Your task to perform on an android device: Set the phone to "Do not disturb". Image 0: 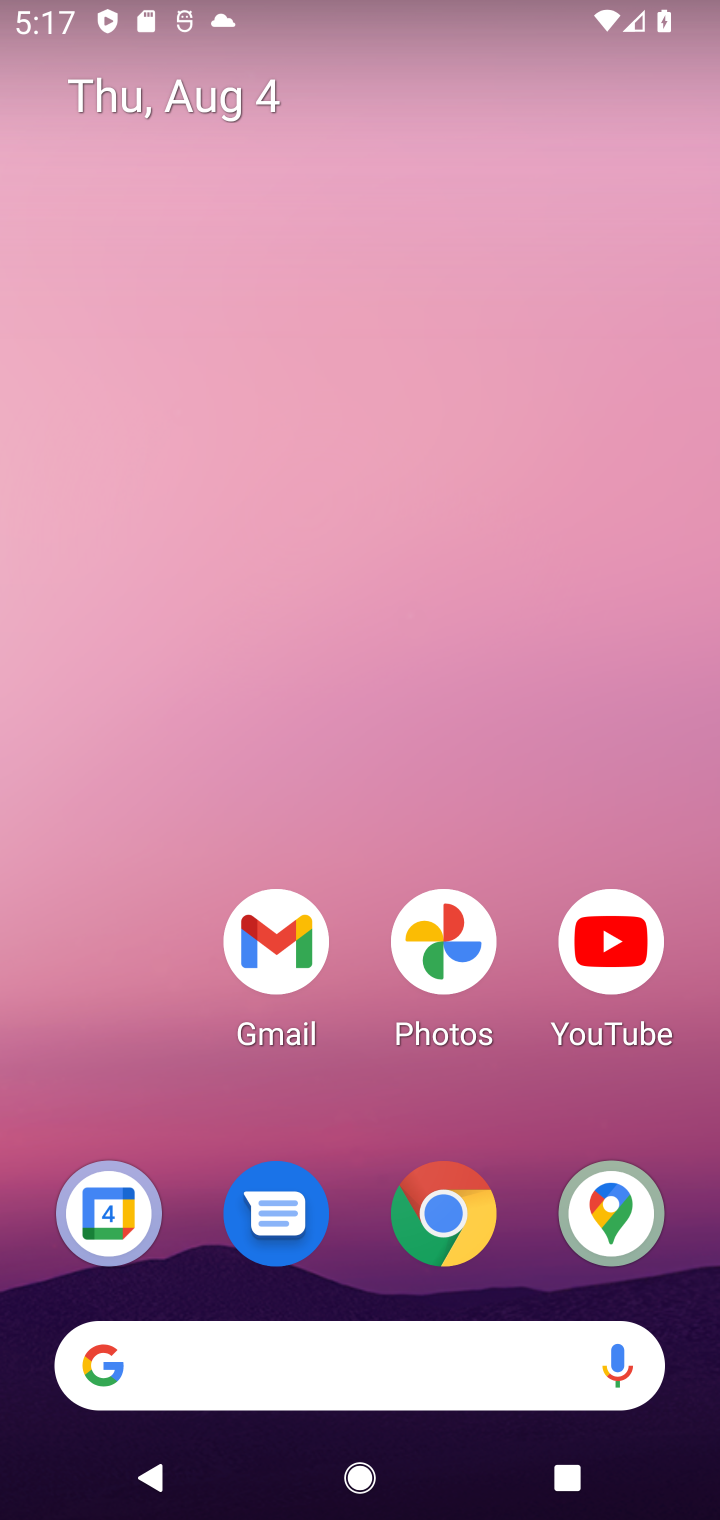
Step 0: press home button
Your task to perform on an android device: Set the phone to "Do not disturb". Image 1: 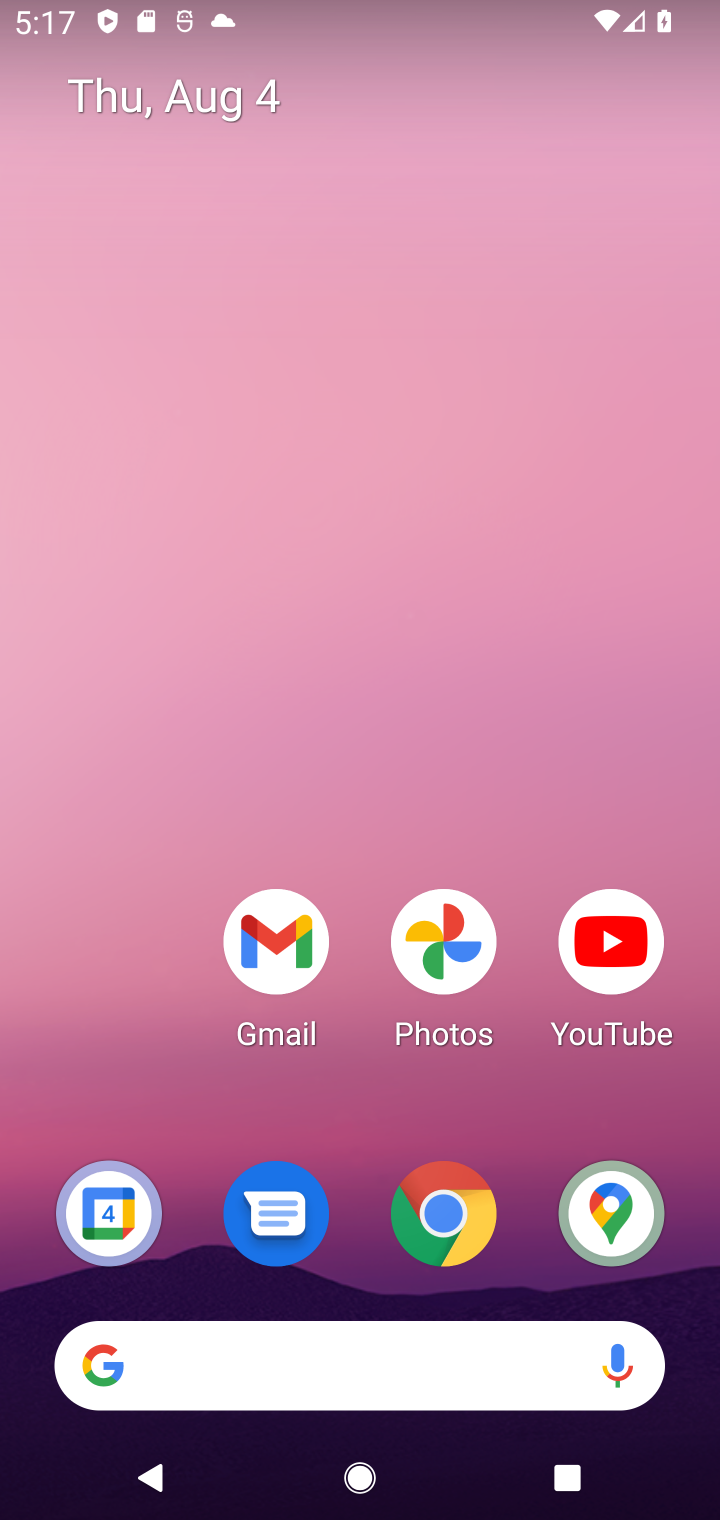
Step 1: drag from (169, 1088) to (171, 385)
Your task to perform on an android device: Set the phone to "Do not disturb". Image 2: 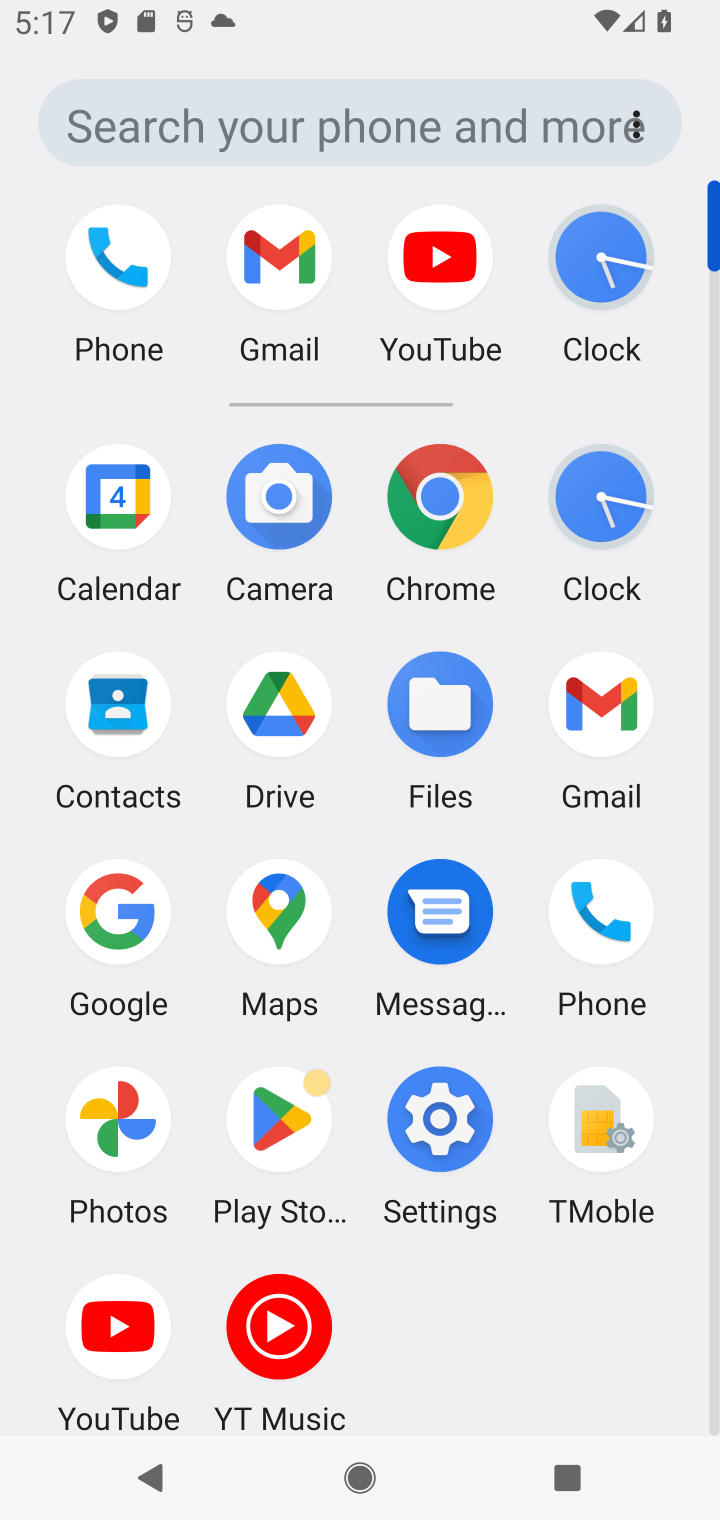
Step 2: click (452, 1100)
Your task to perform on an android device: Set the phone to "Do not disturb". Image 3: 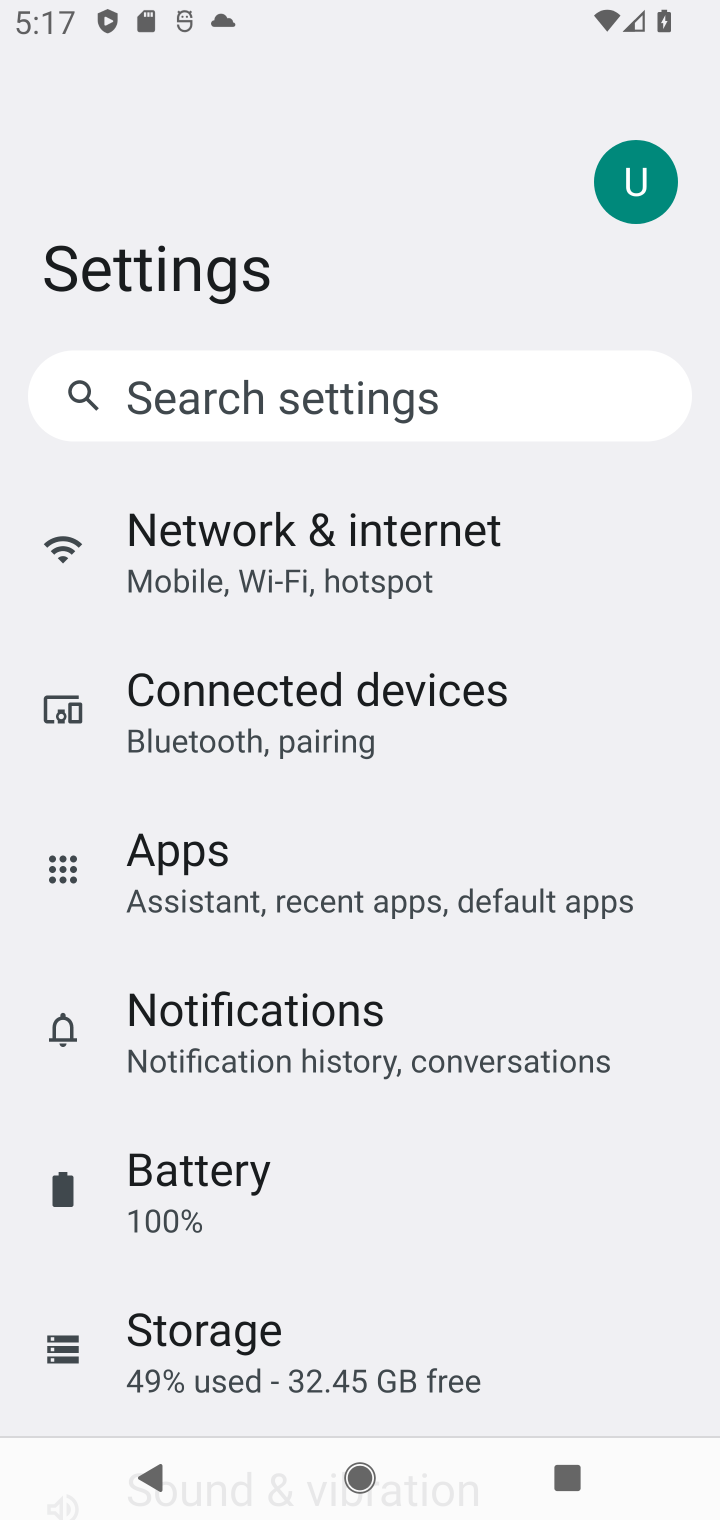
Step 3: drag from (586, 1252) to (607, 913)
Your task to perform on an android device: Set the phone to "Do not disturb". Image 4: 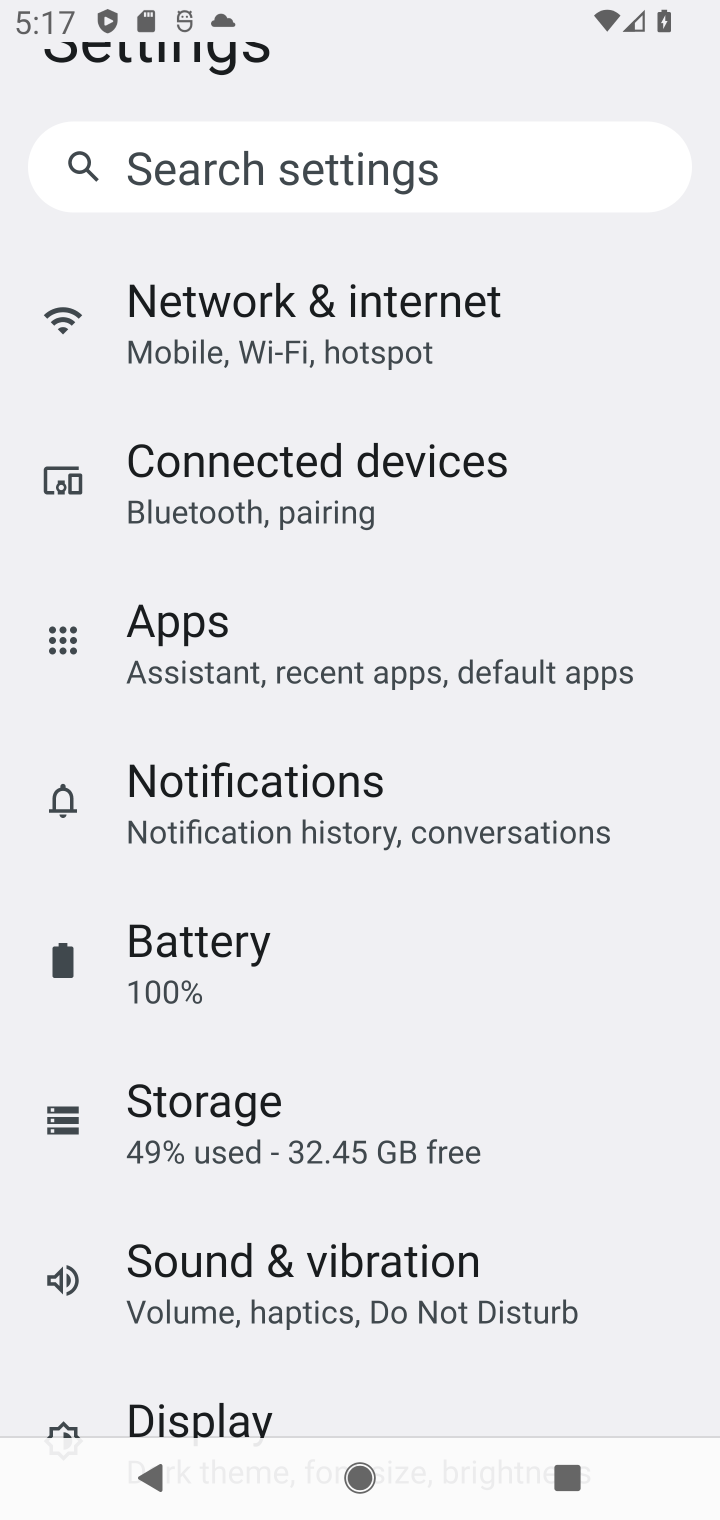
Step 4: drag from (627, 1316) to (630, 1013)
Your task to perform on an android device: Set the phone to "Do not disturb". Image 5: 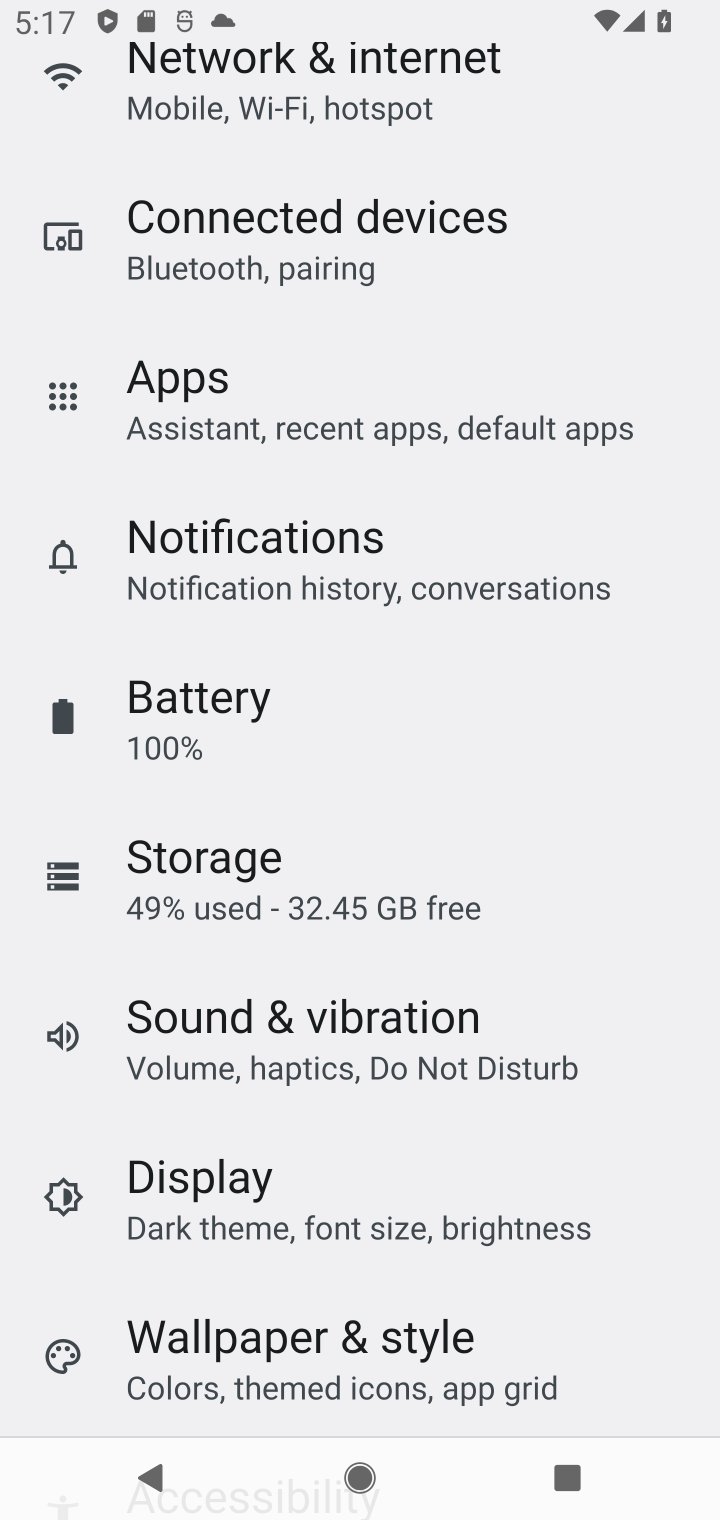
Step 5: drag from (609, 1330) to (619, 1009)
Your task to perform on an android device: Set the phone to "Do not disturb". Image 6: 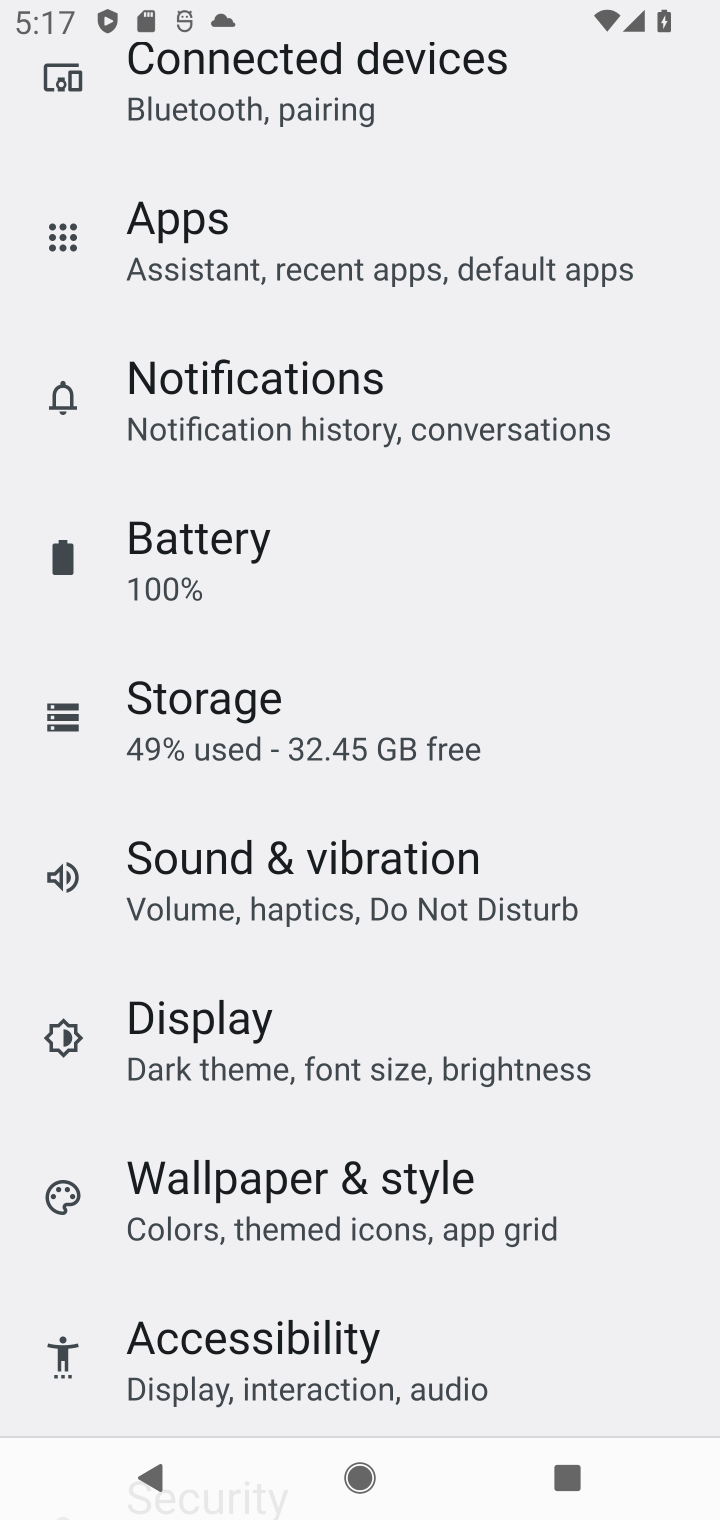
Step 6: drag from (600, 1317) to (611, 1011)
Your task to perform on an android device: Set the phone to "Do not disturb". Image 7: 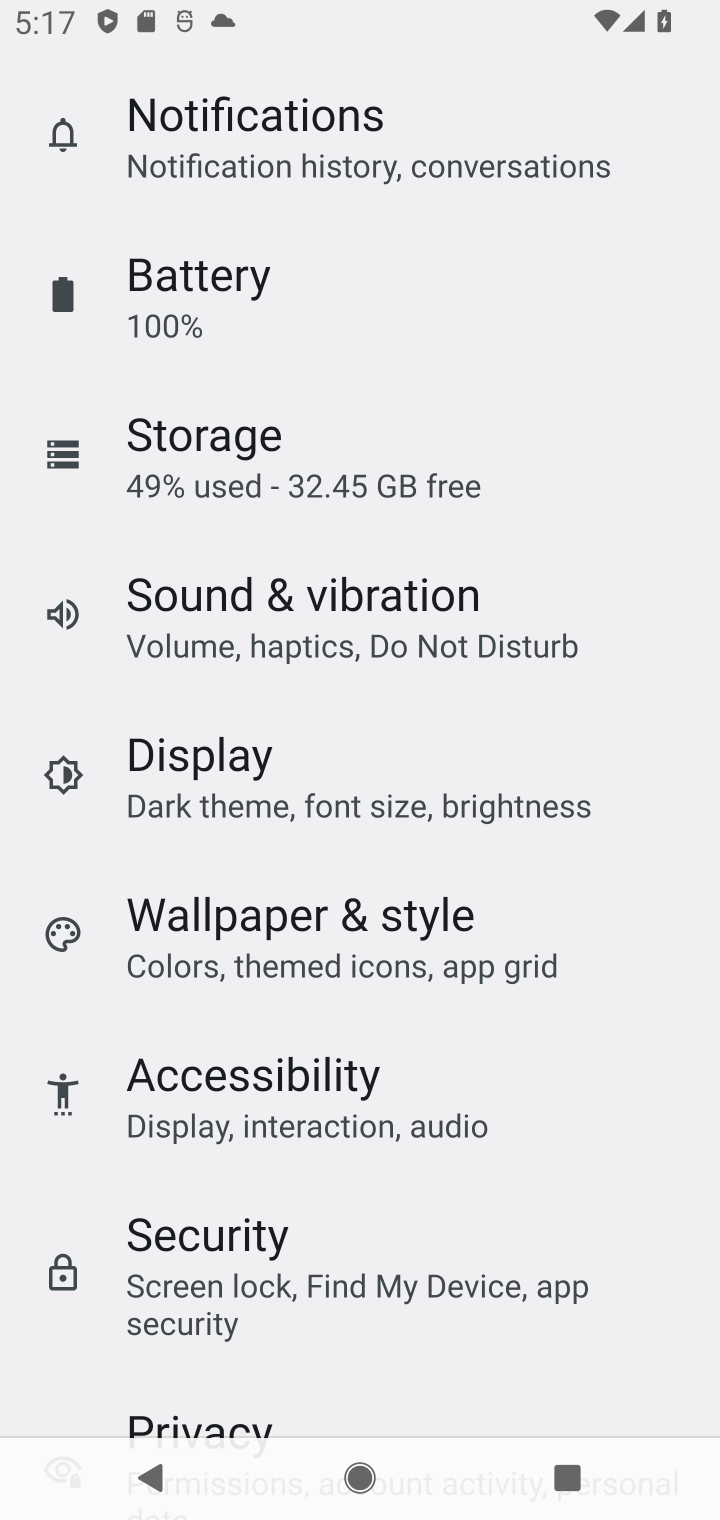
Step 7: drag from (621, 1327) to (641, 887)
Your task to perform on an android device: Set the phone to "Do not disturb". Image 8: 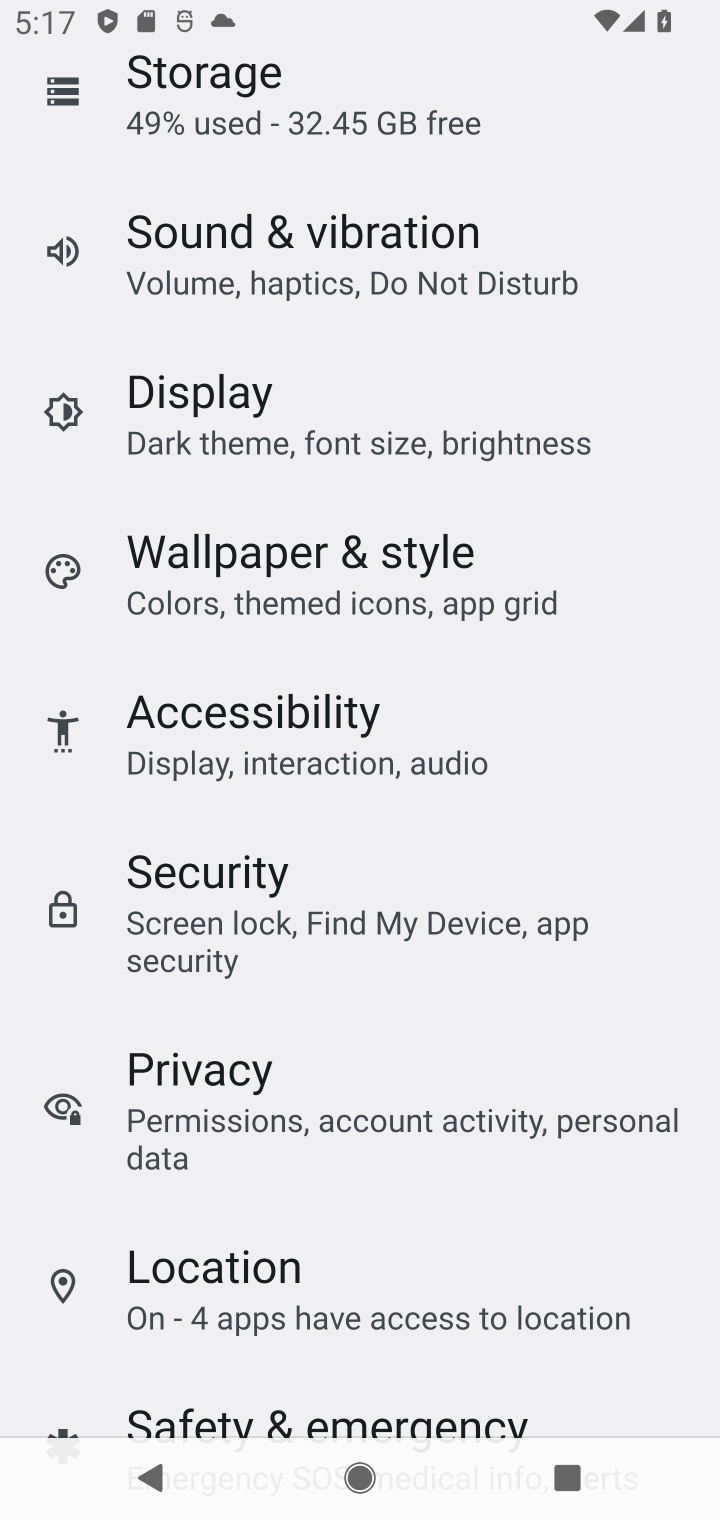
Step 8: drag from (613, 1377) to (607, 841)
Your task to perform on an android device: Set the phone to "Do not disturb". Image 9: 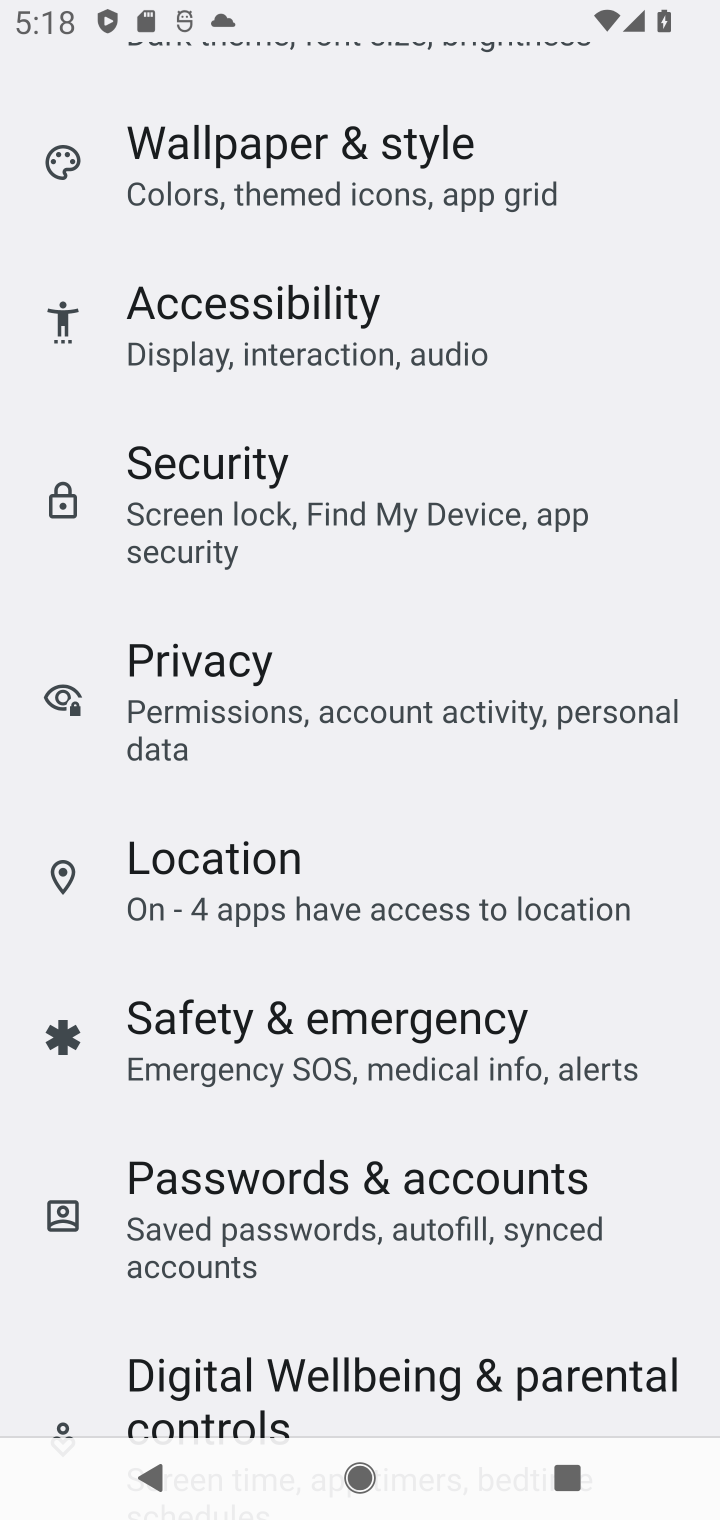
Step 9: drag from (610, 1286) to (621, 881)
Your task to perform on an android device: Set the phone to "Do not disturb". Image 10: 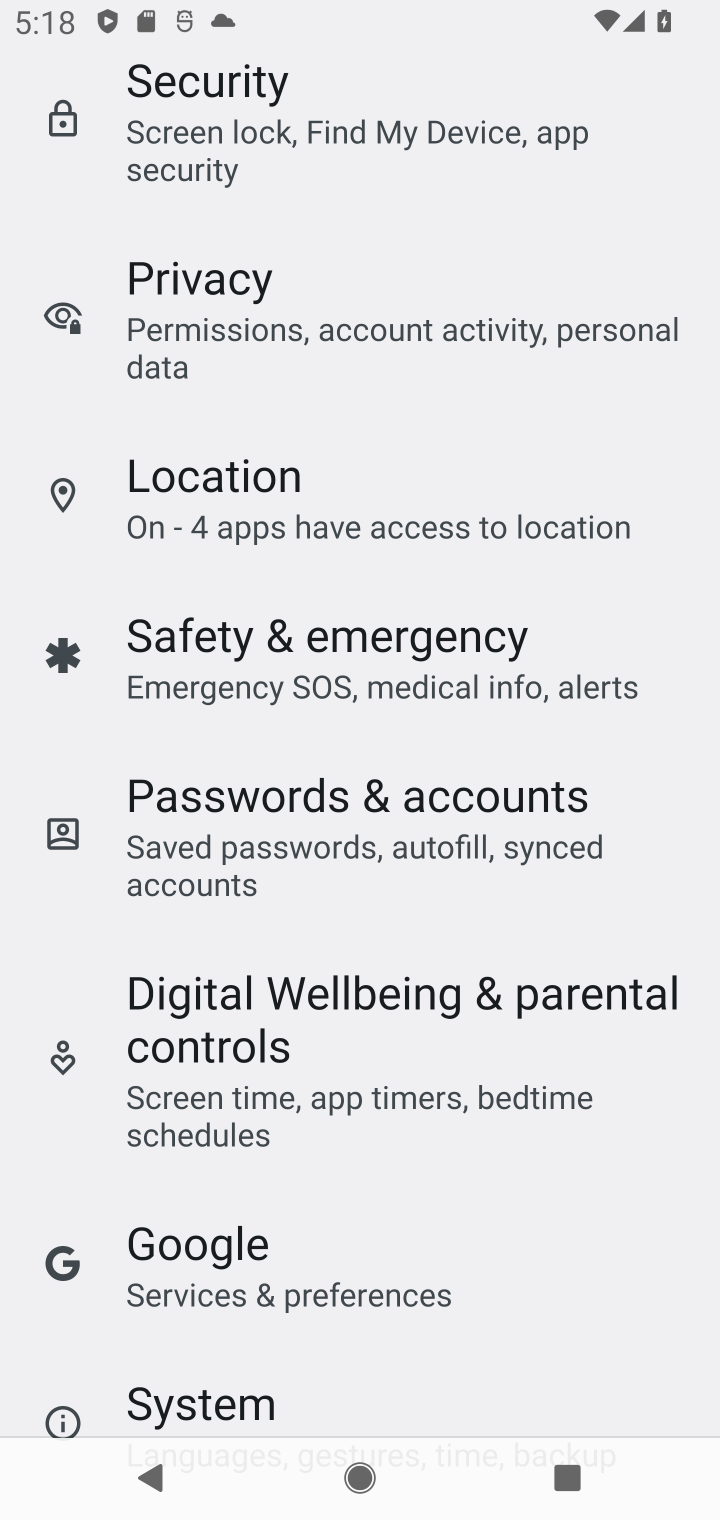
Step 10: drag from (620, 1325) to (602, 906)
Your task to perform on an android device: Set the phone to "Do not disturb". Image 11: 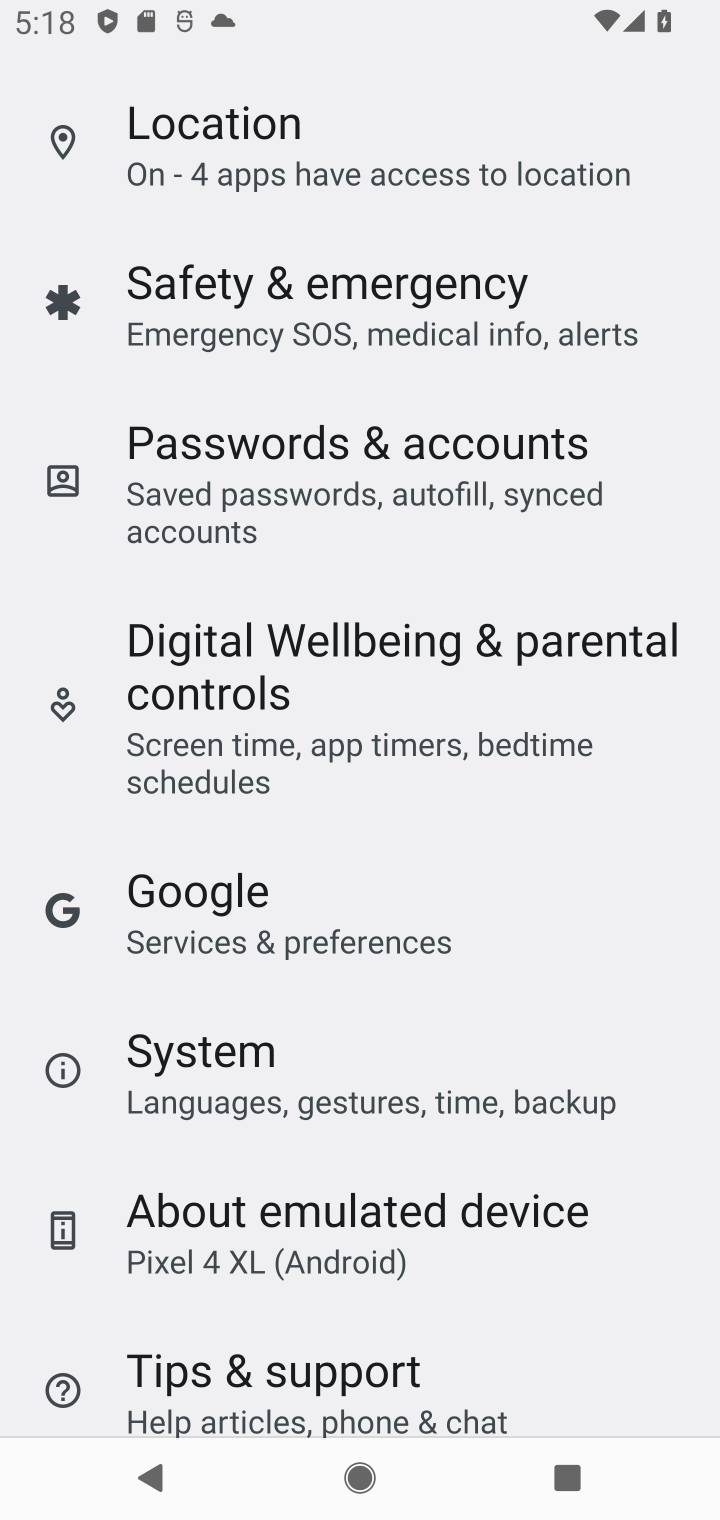
Step 11: drag from (594, 1351) to (628, 943)
Your task to perform on an android device: Set the phone to "Do not disturb". Image 12: 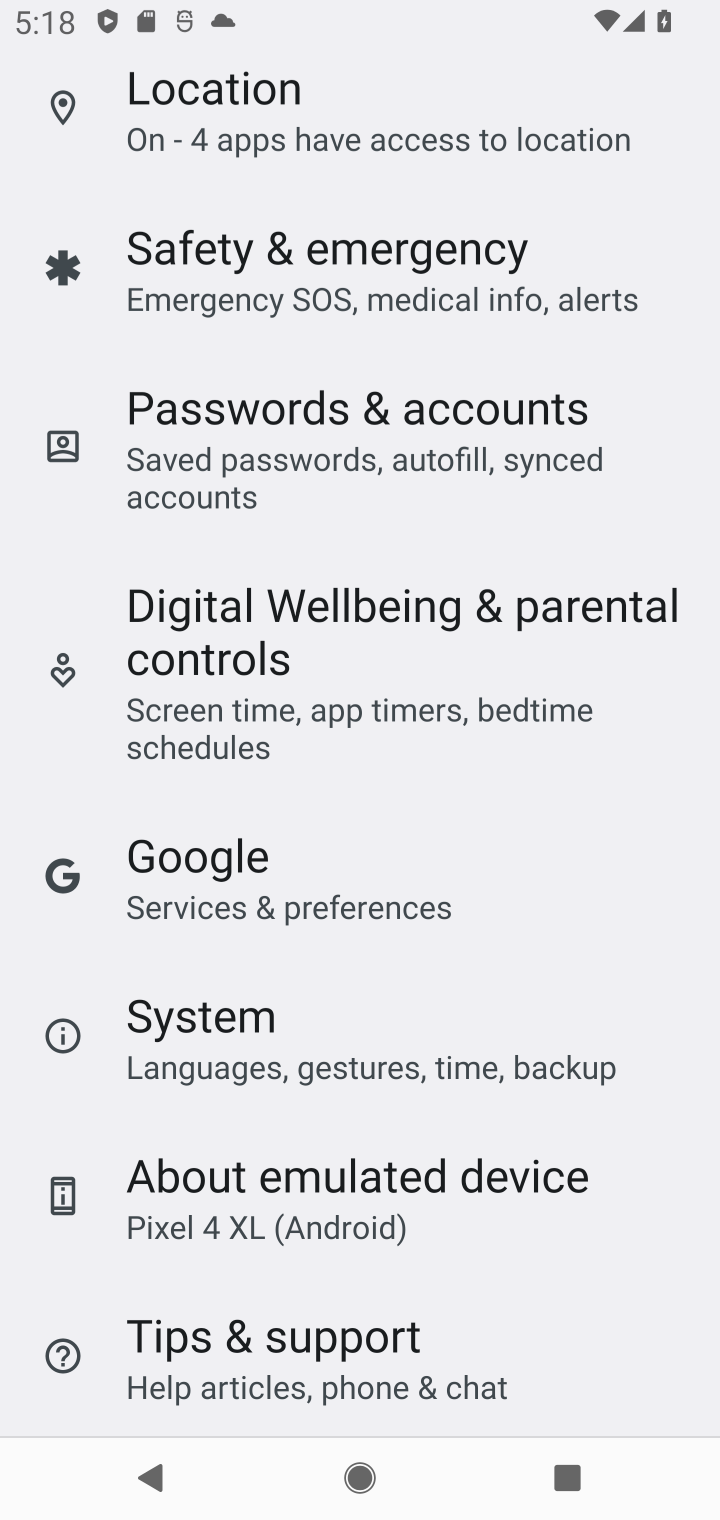
Step 12: drag from (624, 843) to (617, 1242)
Your task to perform on an android device: Set the phone to "Do not disturb". Image 13: 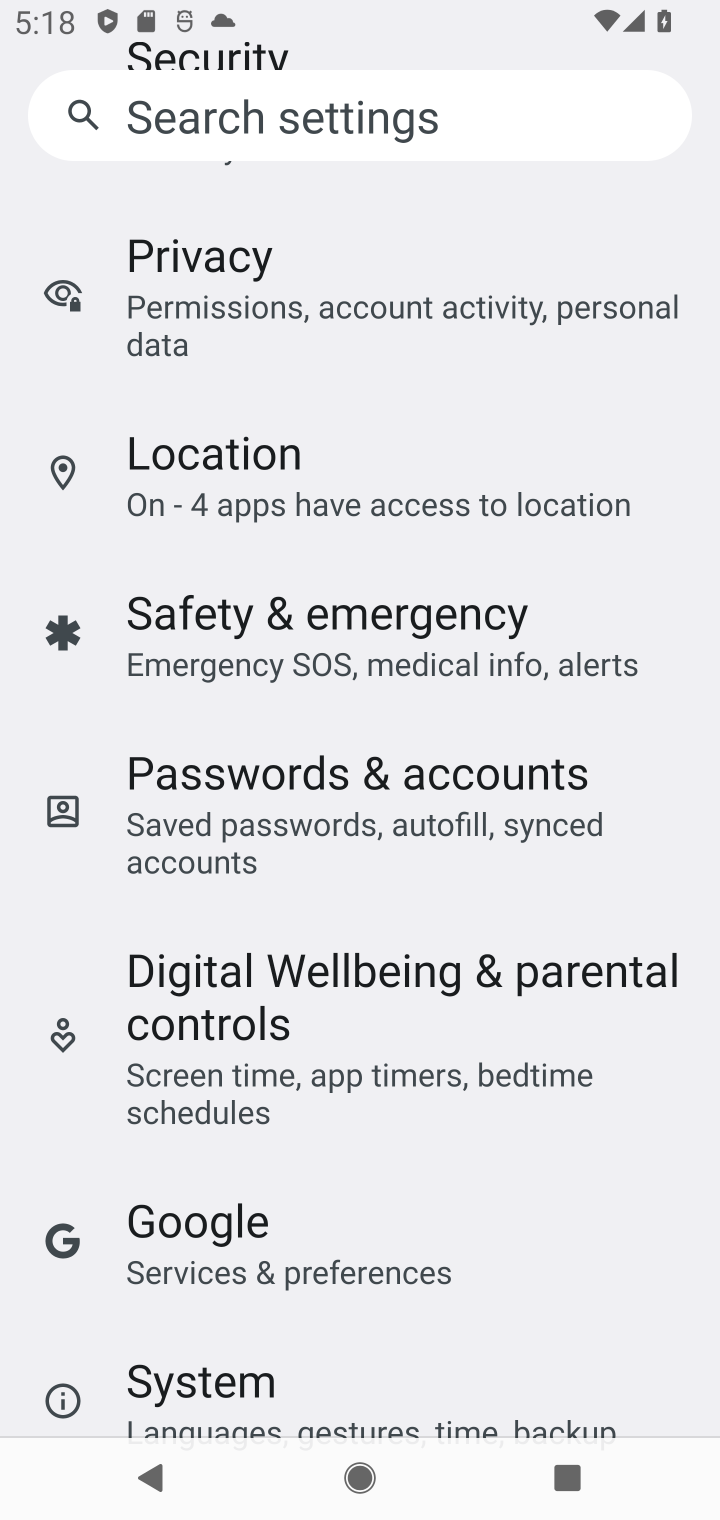
Step 13: drag from (631, 712) to (635, 1140)
Your task to perform on an android device: Set the phone to "Do not disturb". Image 14: 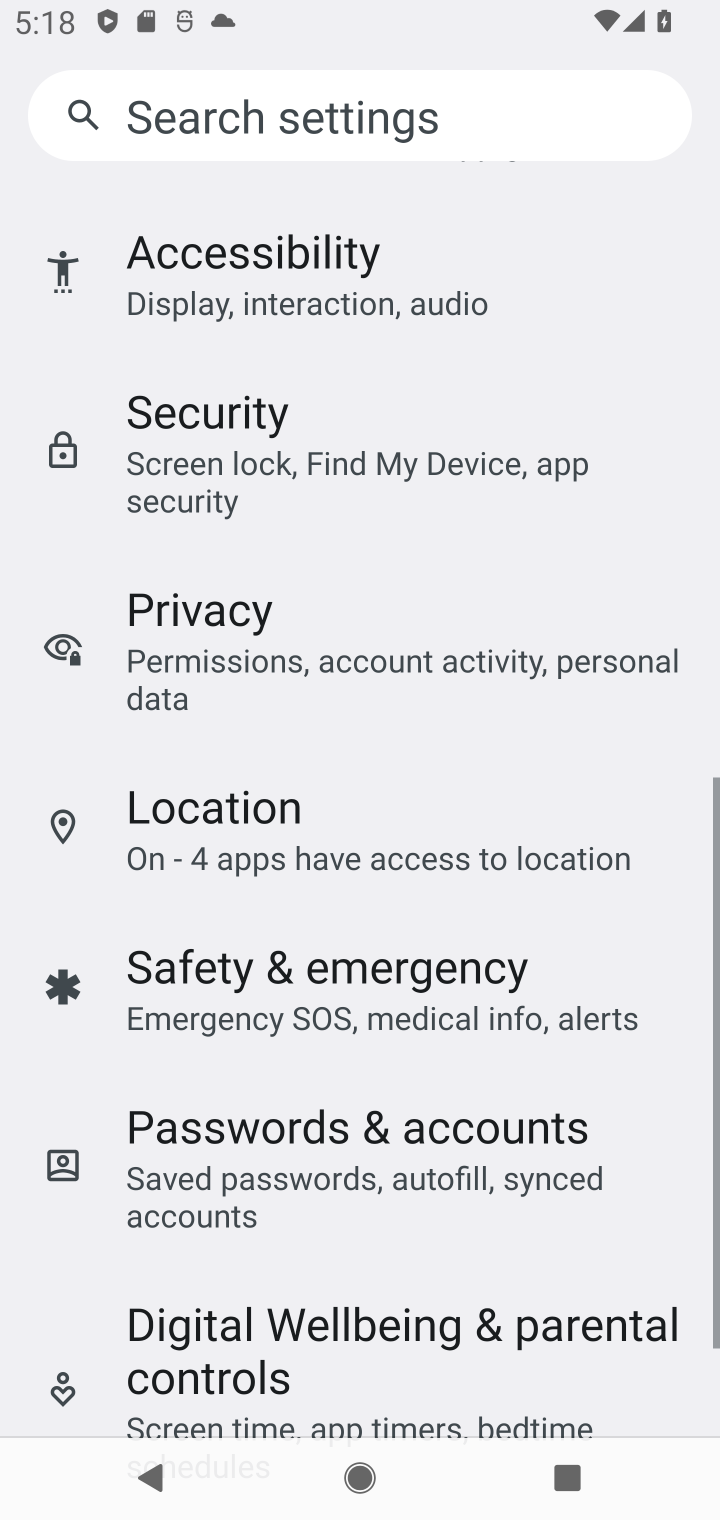
Step 14: drag from (644, 688) to (645, 1132)
Your task to perform on an android device: Set the phone to "Do not disturb". Image 15: 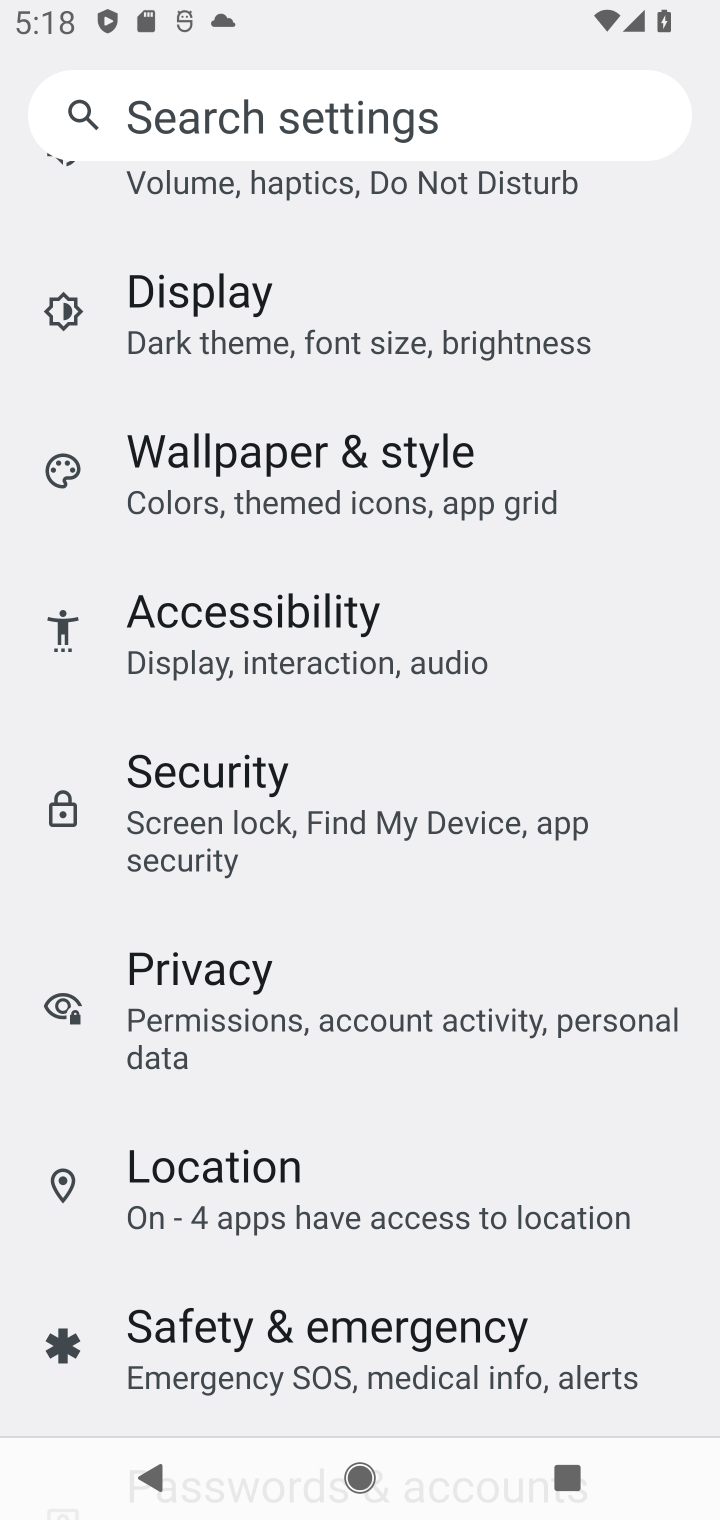
Step 15: drag from (638, 487) to (640, 940)
Your task to perform on an android device: Set the phone to "Do not disturb". Image 16: 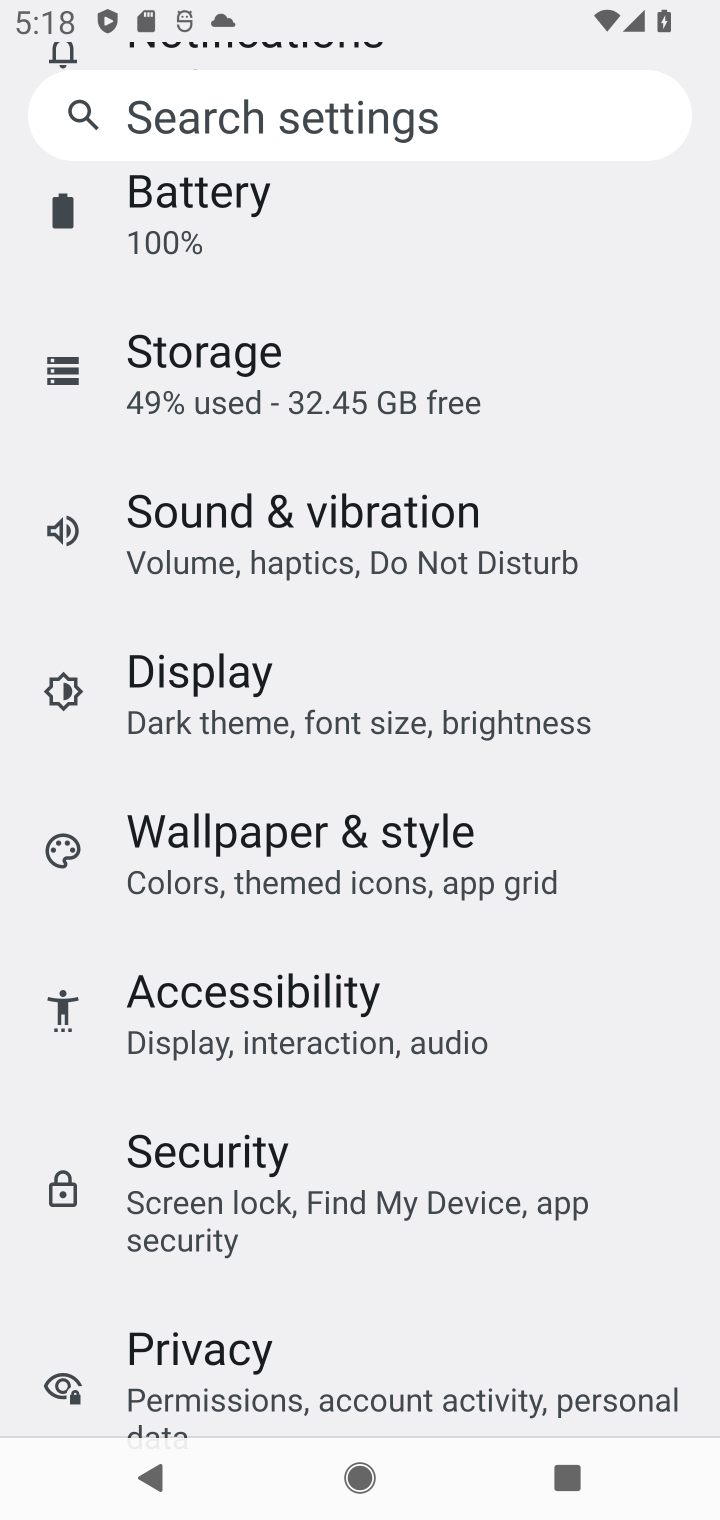
Step 16: drag from (623, 390) to (634, 818)
Your task to perform on an android device: Set the phone to "Do not disturb". Image 17: 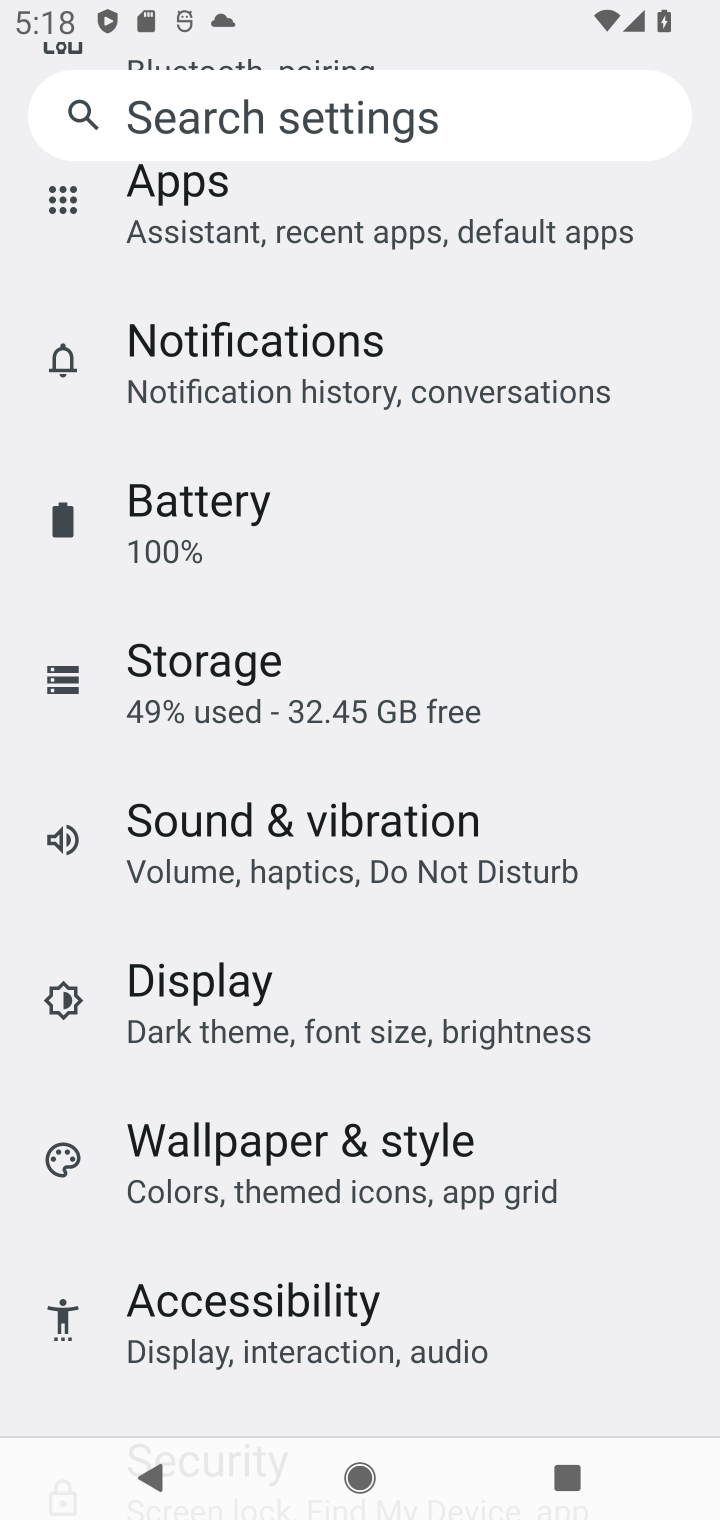
Step 17: click (533, 885)
Your task to perform on an android device: Set the phone to "Do not disturb". Image 18: 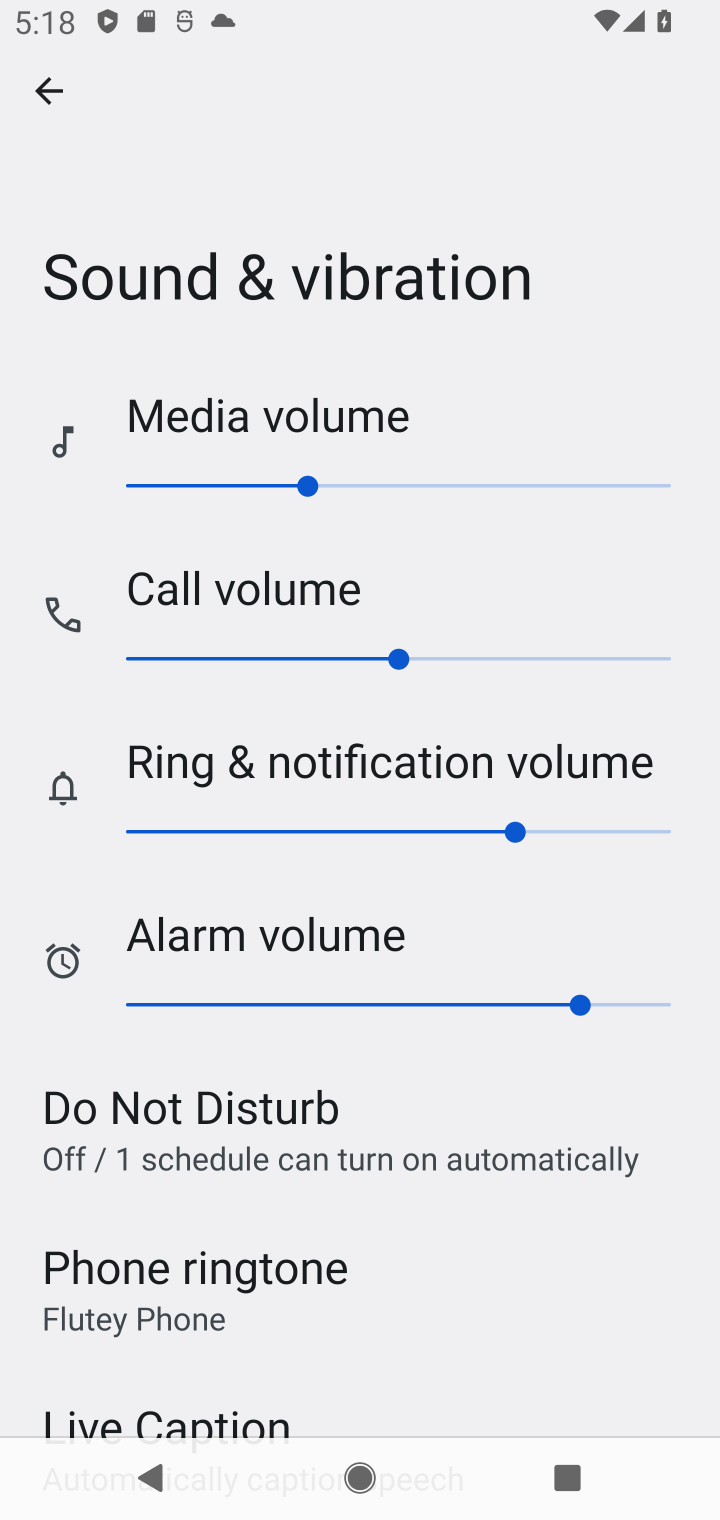
Step 18: drag from (497, 1206) to (525, 654)
Your task to perform on an android device: Set the phone to "Do not disturb". Image 19: 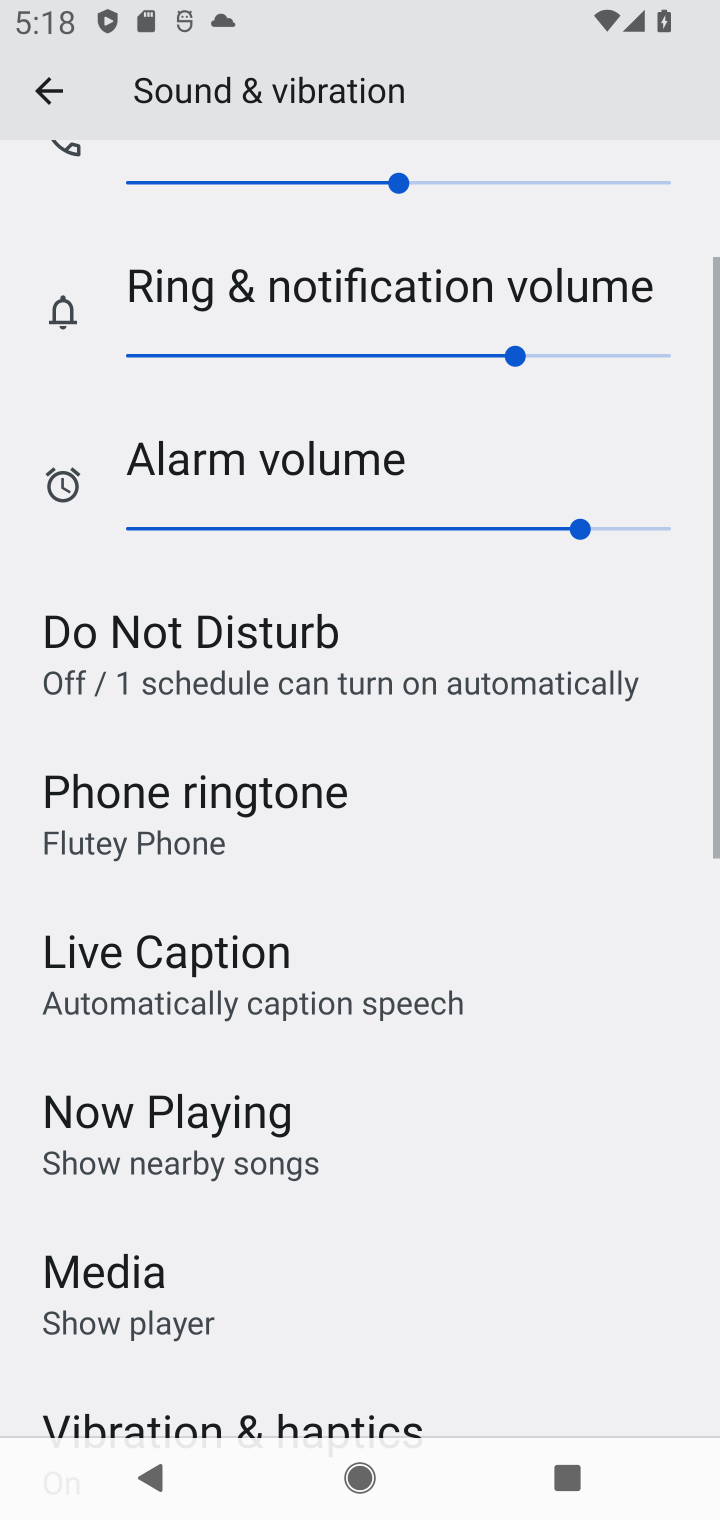
Step 19: click (516, 660)
Your task to perform on an android device: Set the phone to "Do not disturb". Image 20: 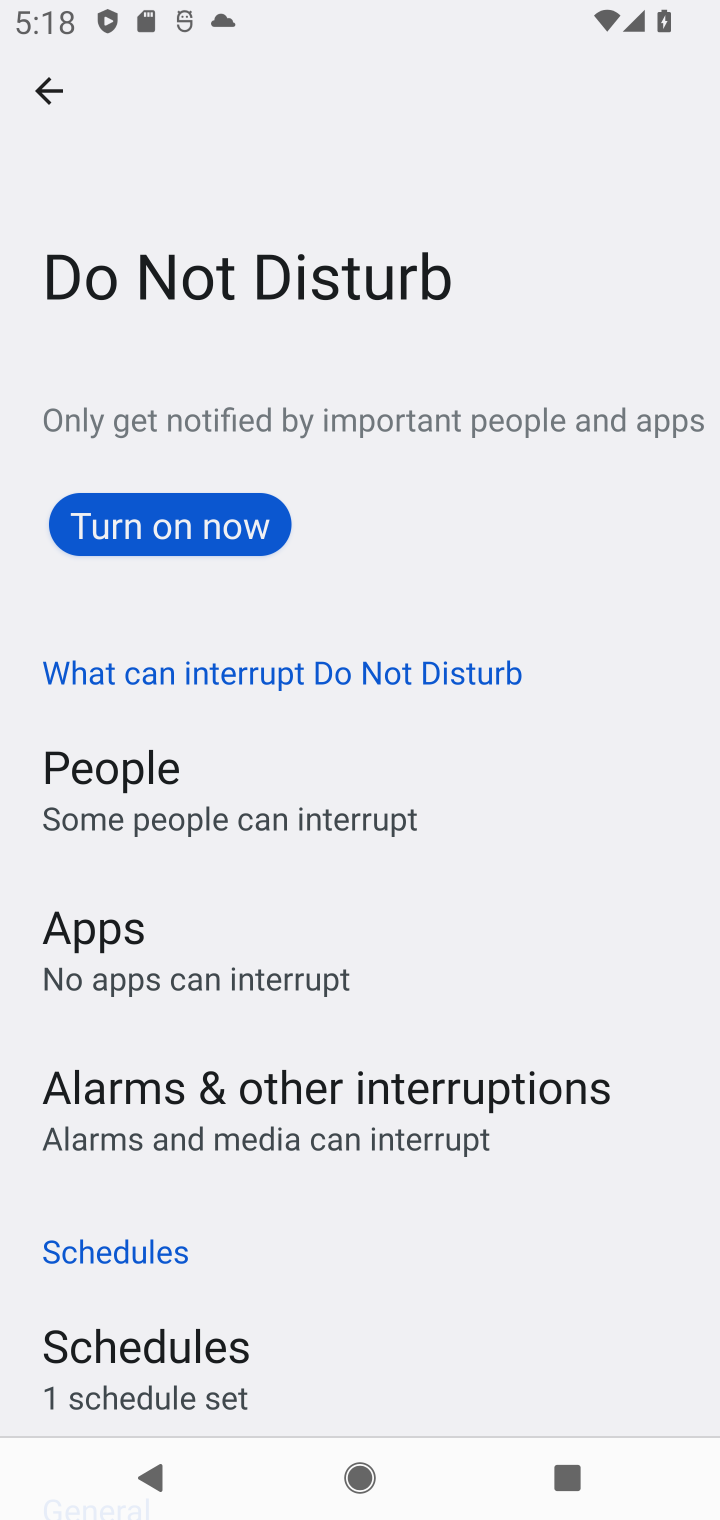
Step 20: click (231, 522)
Your task to perform on an android device: Set the phone to "Do not disturb". Image 21: 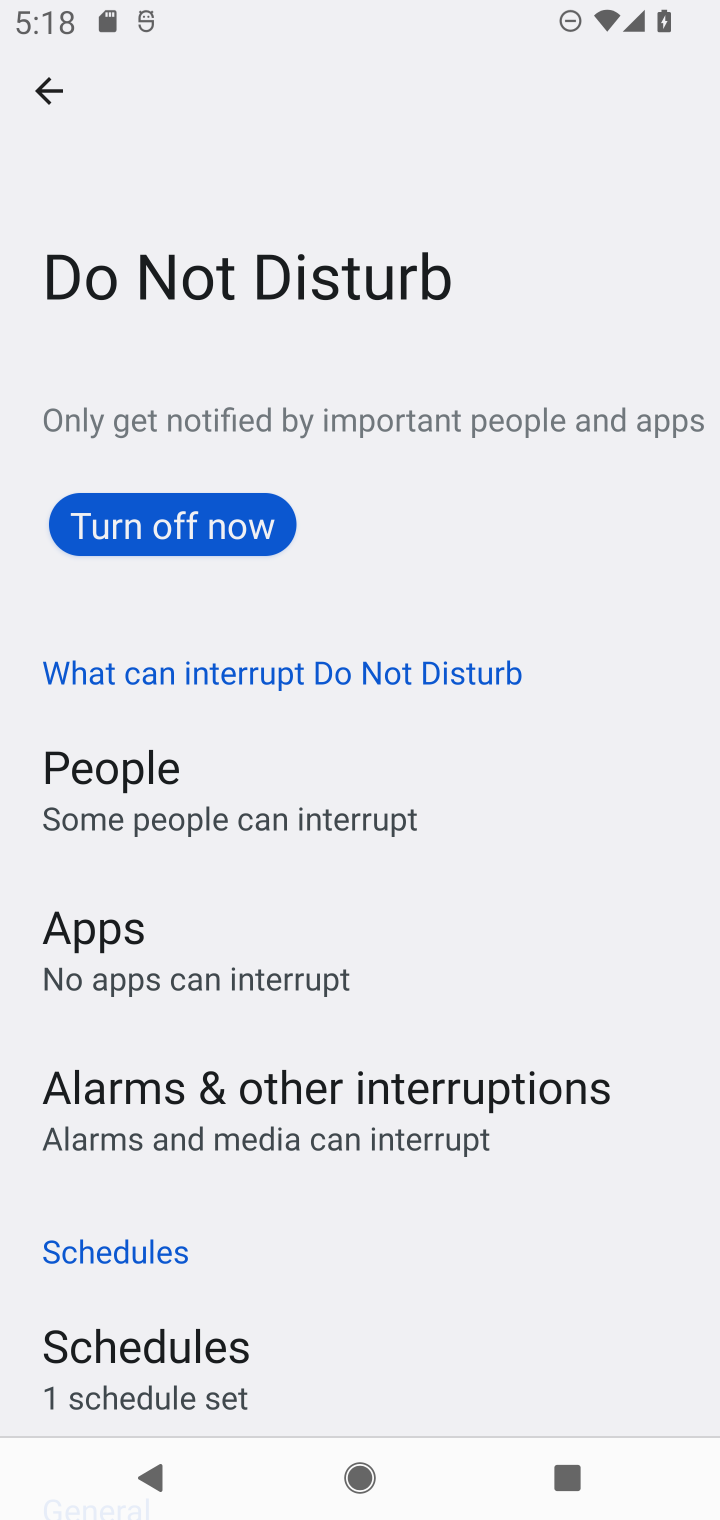
Step 21: task complete